Your task to perform on an android device: toggle improve location accuracy Image 0: 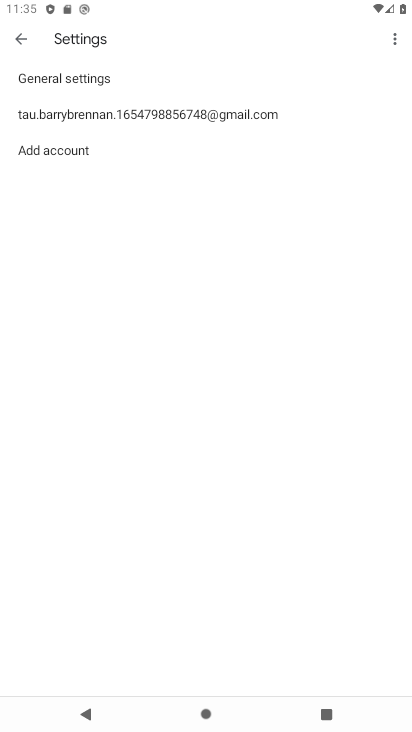
Step 0: press back button
Your task to perform on an android device: toggle improve location accuracy Image 1: 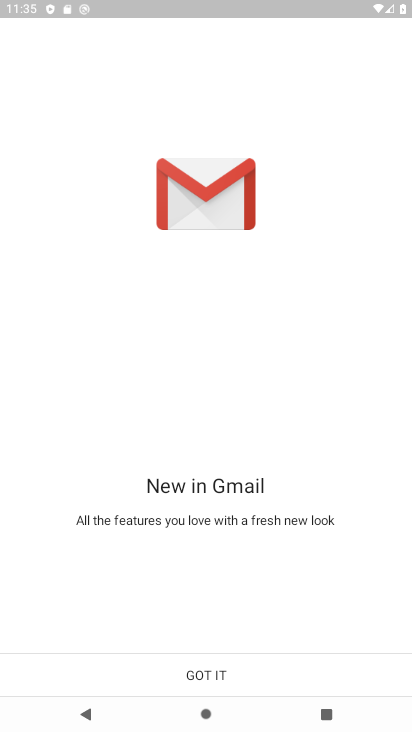
Step 1: click (208, 666)
Your task to perform on an android device: toggle improve location accuracy Image 2: 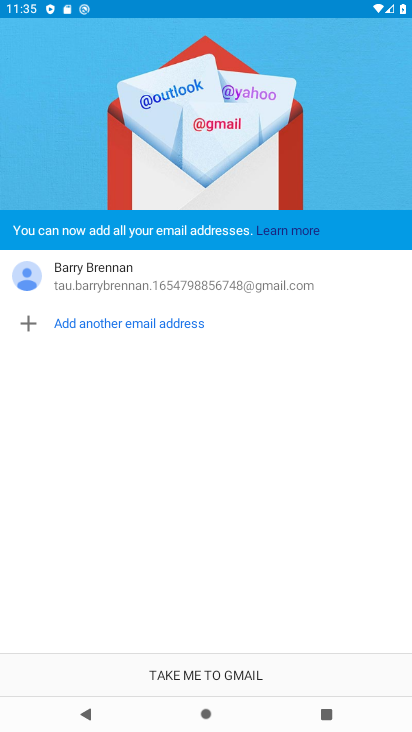
Step 2: press back button
Your task to perform on an android device: toggle improve location accuracy Image 3: 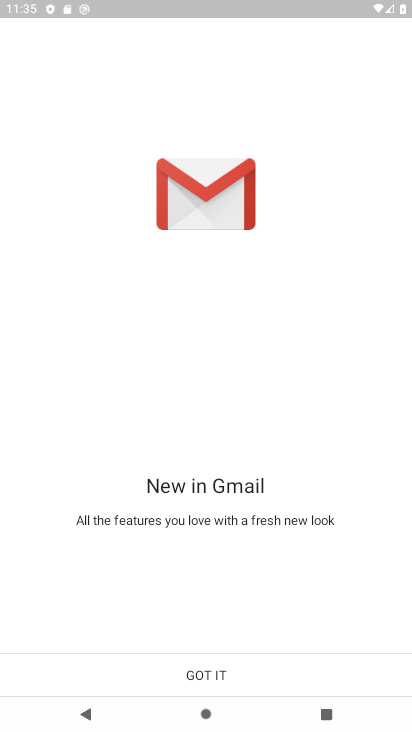
Step 3: press back button
Your task to perform on an android device: toggle improve location accuracy Image 4: 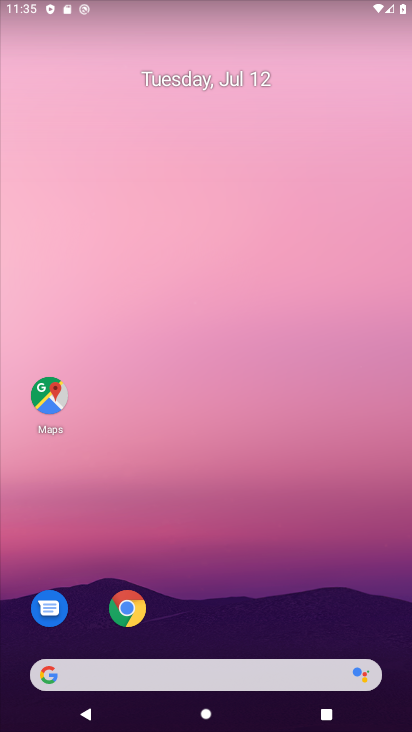
Step 4: drag from (228, 644) to (257, 81)
Your task to perform on an android device: toggle improve location accuracy Image 5: 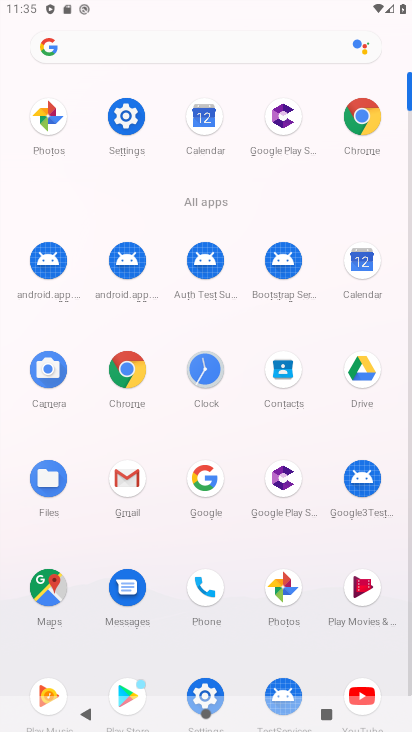
Step 5: click (115, 117)
Your task to perform on an android device: toggle improve location accuracy Image 6: 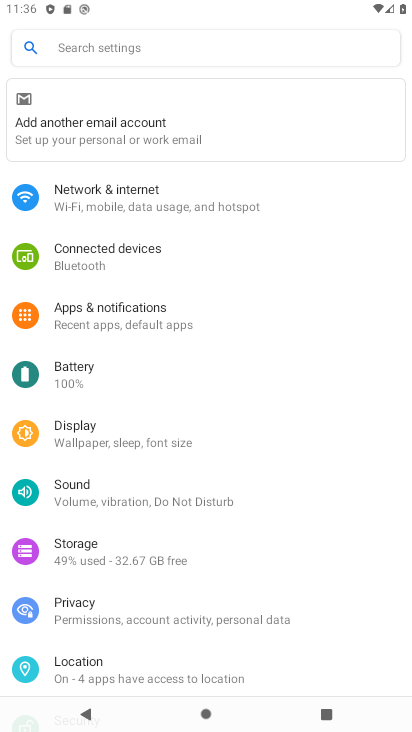
Step 6: click (112, 650)
Your task to perform on an android device: toggle improve location accuracy Image 7: 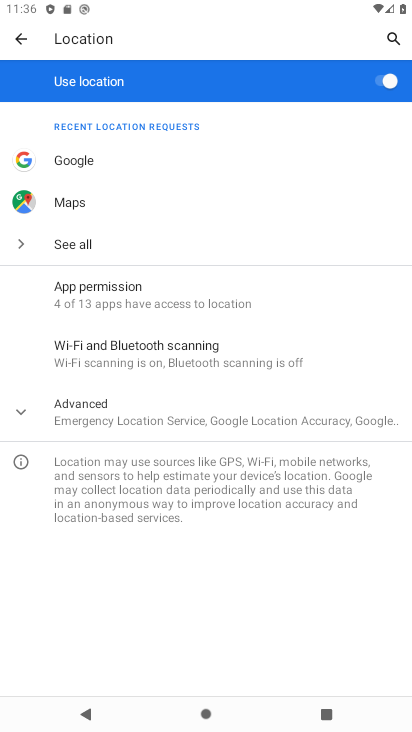
Step 7: click (138, 430)
Your task to perform on an android device: toggle improve location accuracy Image 8: 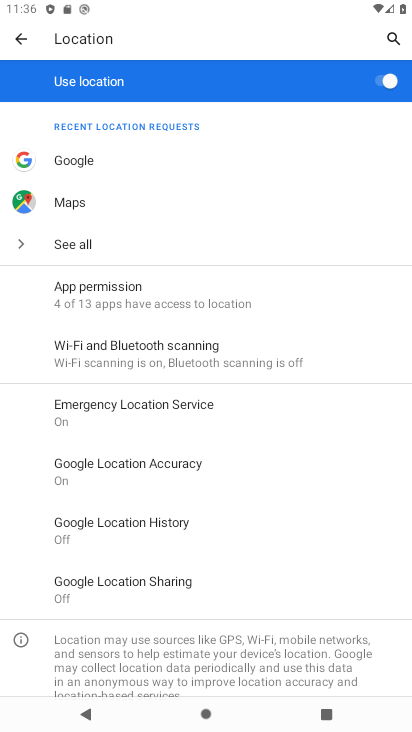
Step 8: click (138, 468)
Your task to perform on an android device: toggle improve location accuracy Image 9: 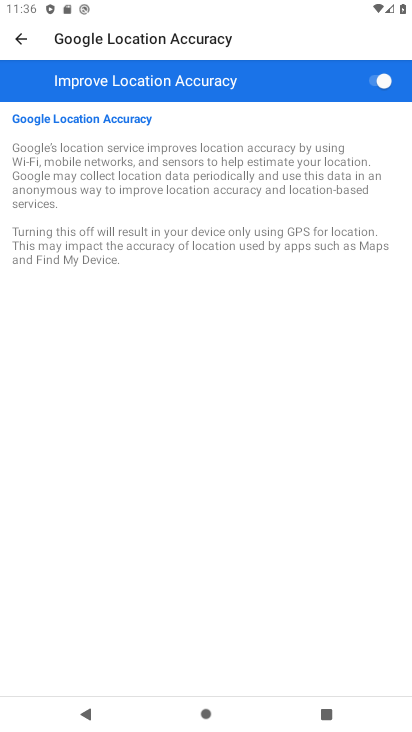
Step 9: click (386, 70)
Your task to perform on an android device: toggle improve location accuracy Image 10: 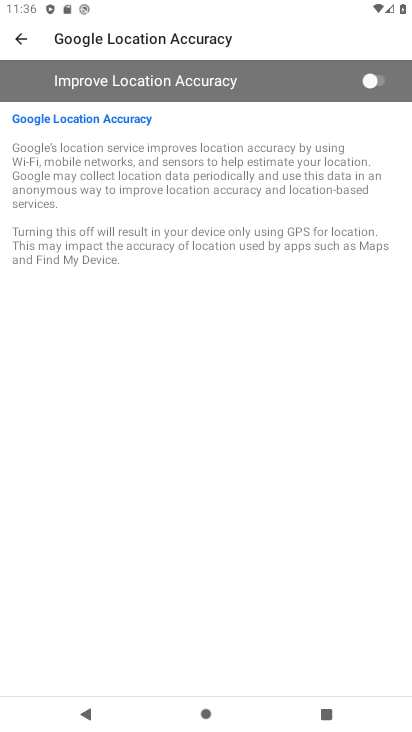
Step 10: task complete